Your task to perform on an android device: Go to privacy settings Image 0: 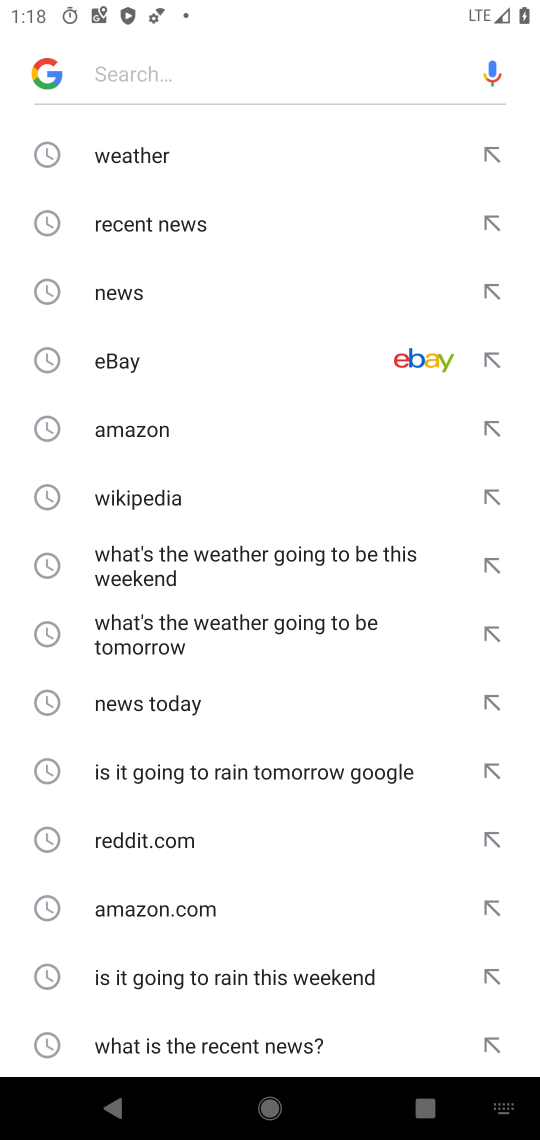
Step 0: press home button
Your task to perform on an android device: Go to privacy settings Image 1: 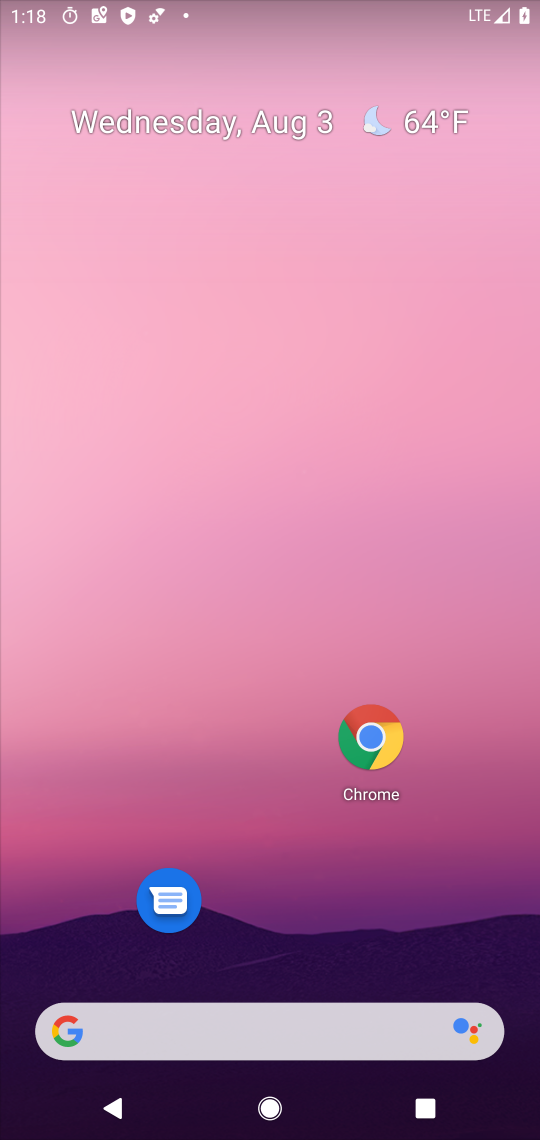
Step 1: drag from (301, 939) to (303, 96)
Your task to perform on an android device: Go to privacy settings Image 2: 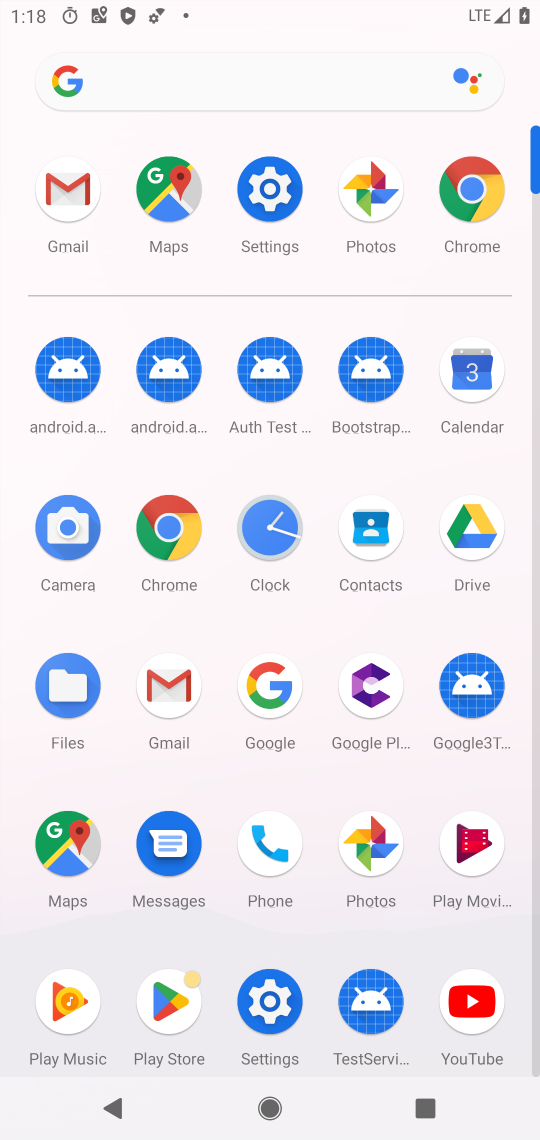
Step 2: click (271, 186)
Your task to perform on an android device: Go to privacy settings Image 3: 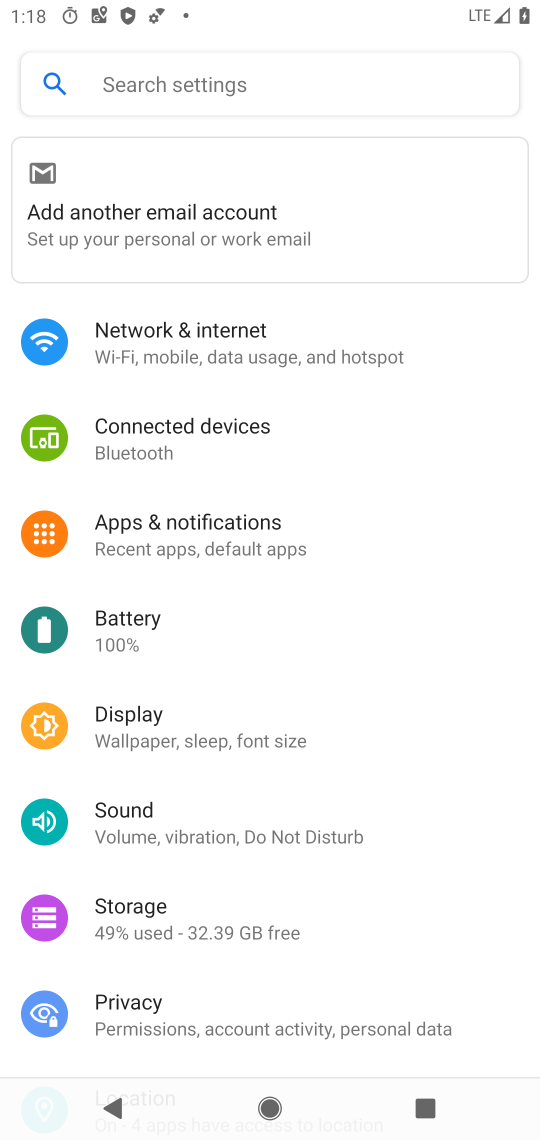
Step 3: click (192, 1018)
Your task to perform on an android device: Go to privacy settings Image 4: 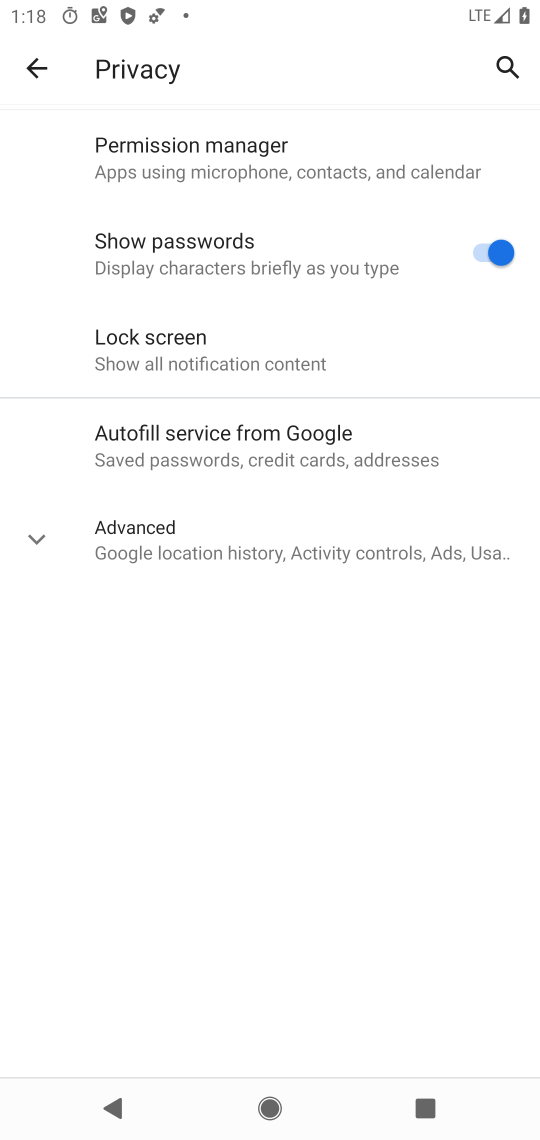
Step 4: task complete